Your task to perform on an android device: toggle notification dots Image 0: 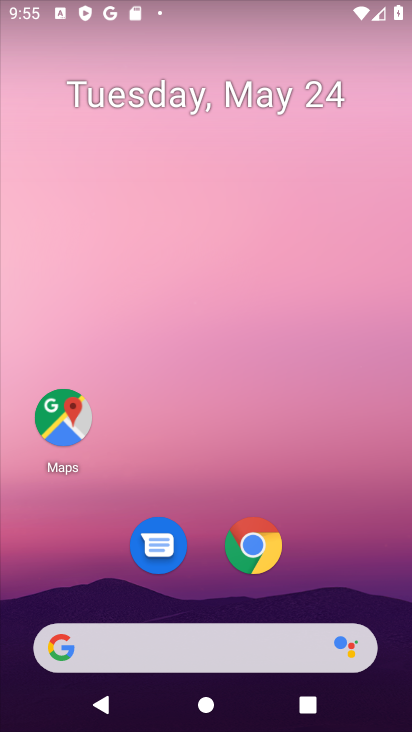
Step 0: drag from (217, 480) to (281, 0)
Your task to perform on an android device: toggle notification dots Image 1: 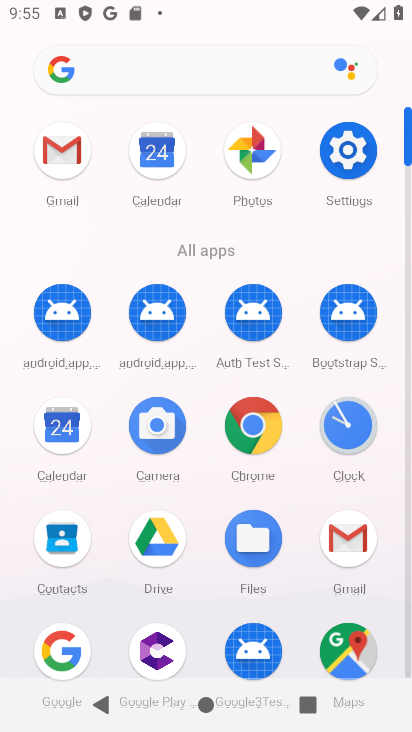
Step 1: click (349, 149)
Your task to perform on an android device: toggle notification dots Image 2: 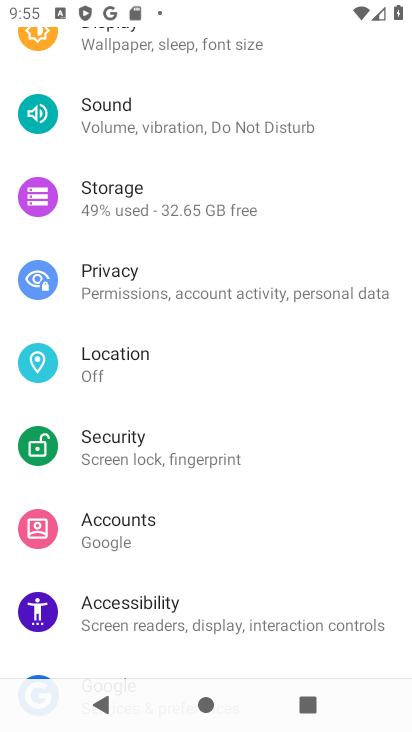
Step 2: drag from (297, 200) to (228, 637)
Your task to perform on an android device: toggle notification dots Image 3: 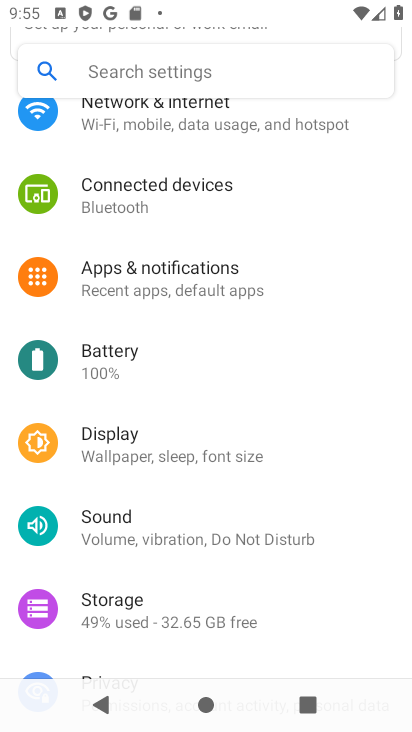
Step 3: click (220, 280)
Your task to perform on an android device: toggle notification dots Image 4: 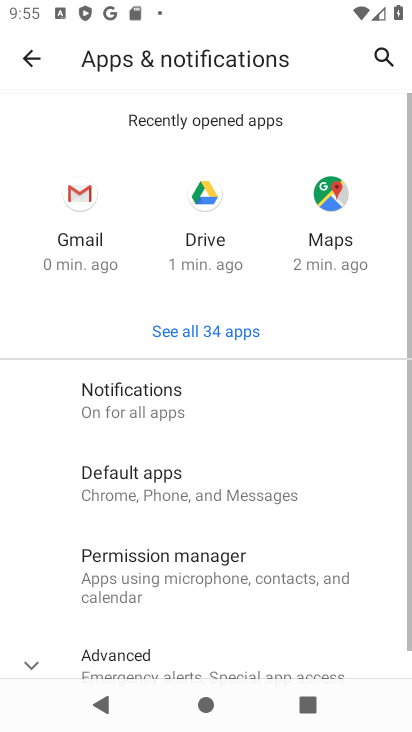
Step 4: click (175, 410)
Your task to perform on an android device: toggle notification dots Image 5: 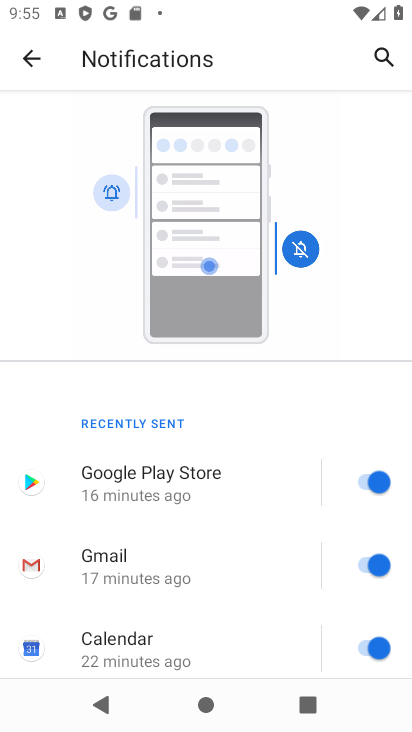
Step 5: drag from (185, 526) to (292, 113)
Your task to perform on an android device: toggle notification dots Image 6: 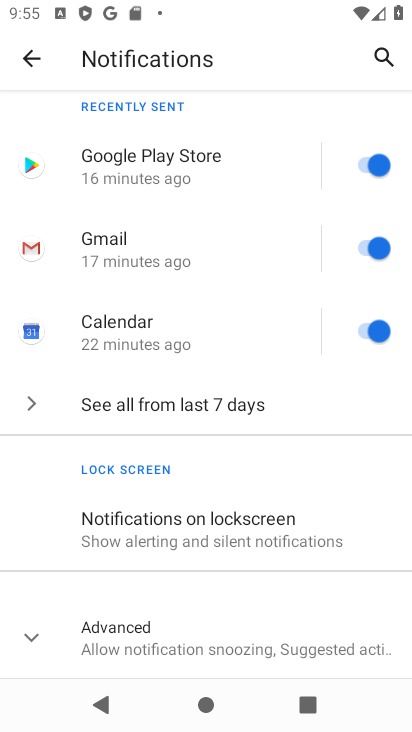
Step 6: click (27, 636)
Your task to perform on an android device: toggle notification dots Image 7: 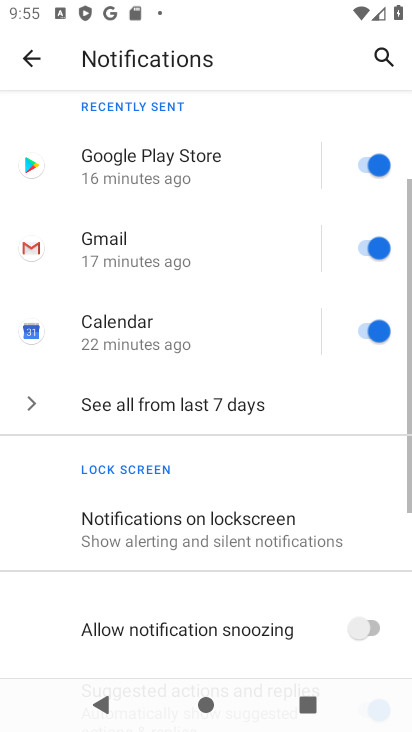
Step 7: drag from (146, 583) to (292, 175)
Your task to perform on an android device: toggle notification dots Image 8: 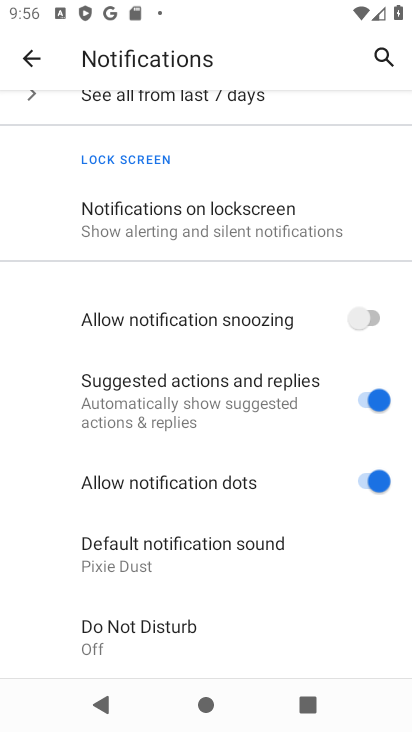
Step 8: click (371, 480)
Your task to perform on an android device: toggle notification dots Image 9: 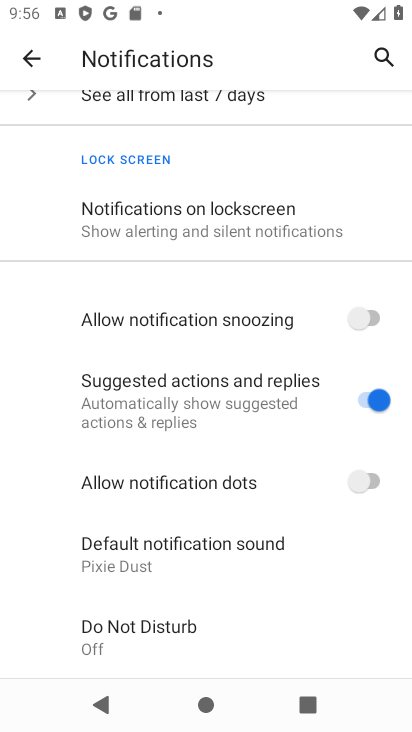
Step 9: task complete